Your task to perform on an android device: turn off javascript in the chrome app Image 0: 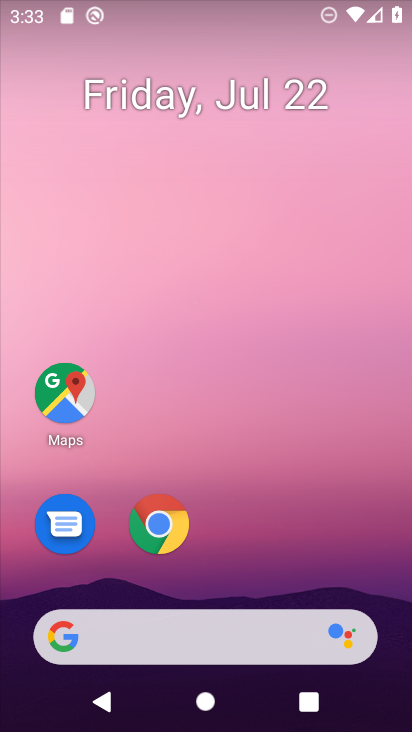
Step 0: press home button
Your task to perform on an android device: turn off javascript in the chrome app Image 1: 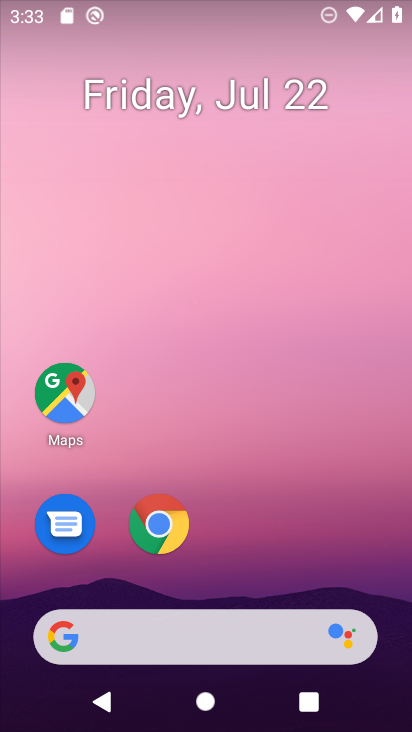
Step 1: click (161, 533)
Your task to perform on an android device: turn off javascript in the chrome app Image 2: 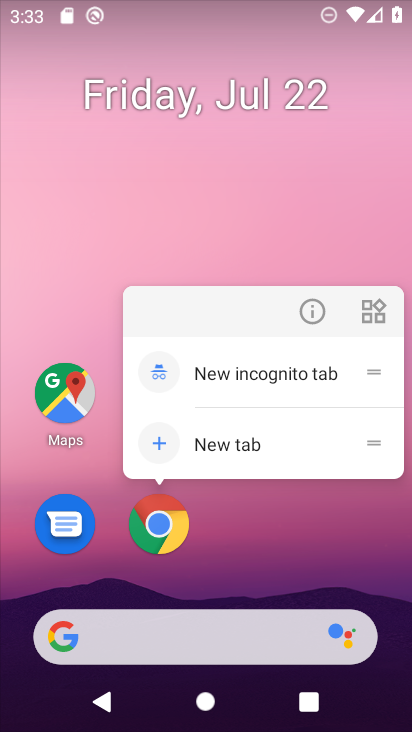
Step 2: click (165, 514)
Your task to perform on an android device: turn off javascript in the chrome app Image 3: 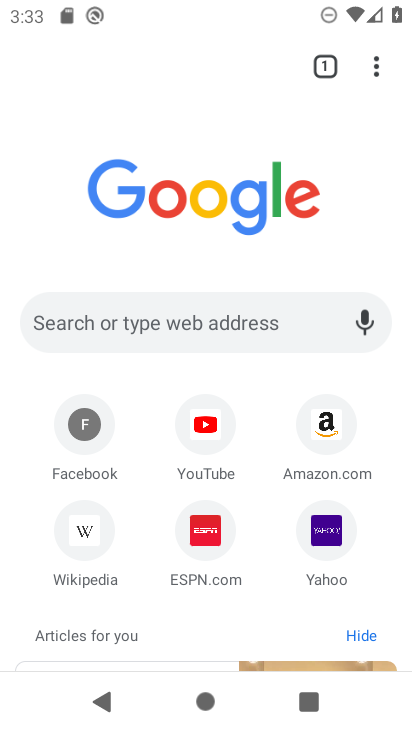
Step 3: drag from (376, 65) to (238, 568)
Your task to perform on an android device: turn off javascript in the chrome app Image 4: 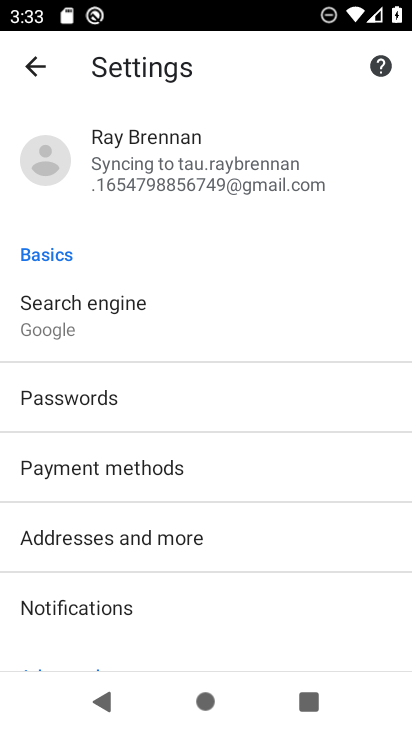
Step 4: drag from (191, 600) to (271, 292)
Your task to perform on an android device: turn off javascript in the chrome app Image 5: 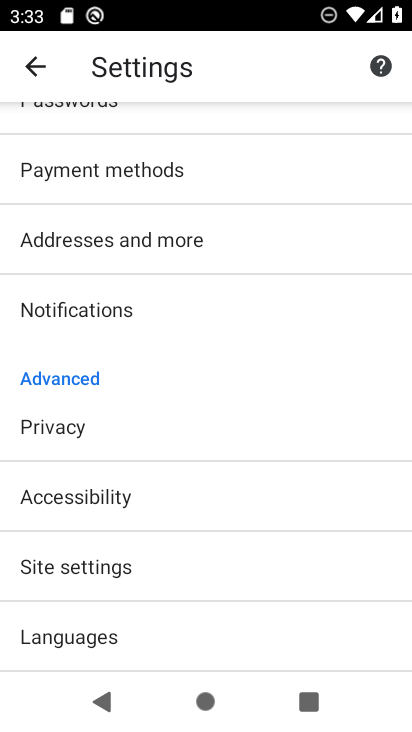
Step 5: click (114, 573)
Your task to perform on an android device: turn off javascript in the chrome app Image 6: 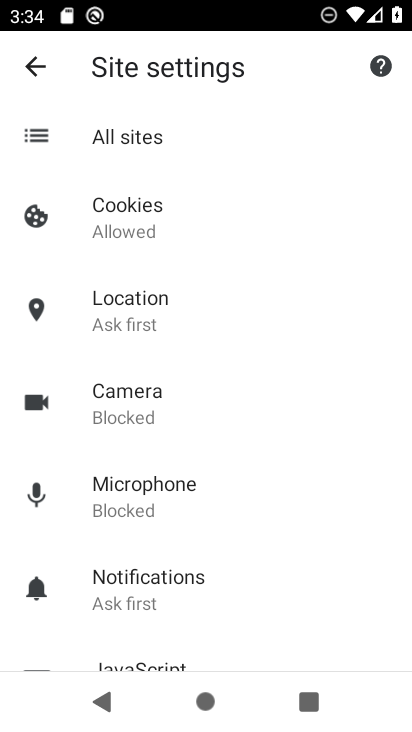
Step 6: drag from (225, 615) to (334, 153)
Your task to perform on an android device: turn off javascript in the chrome app Image 7: 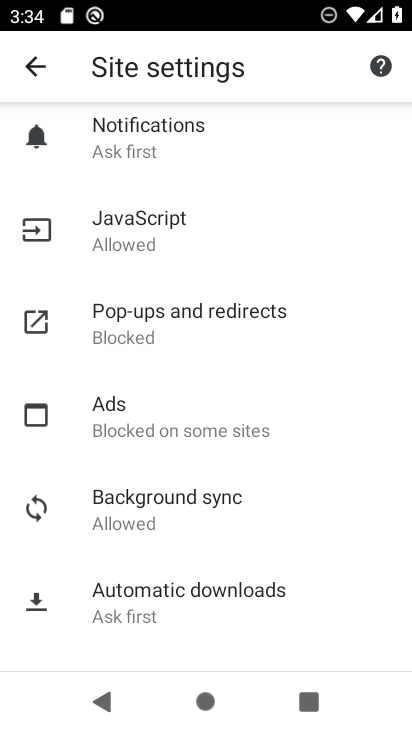
Step 7: click (129, 223)
Your task to perform on an android device: turn off javascript in the chrome app Image 8: 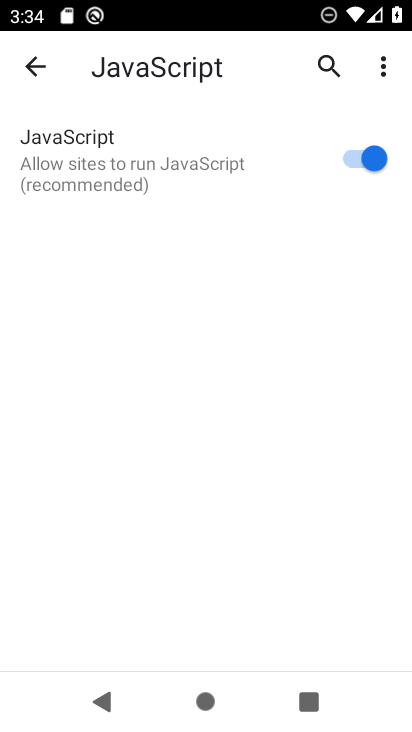
Step 8: click (354, 160)
Your task to perform on an android device: turn off javascript in the chrome app Image 9: 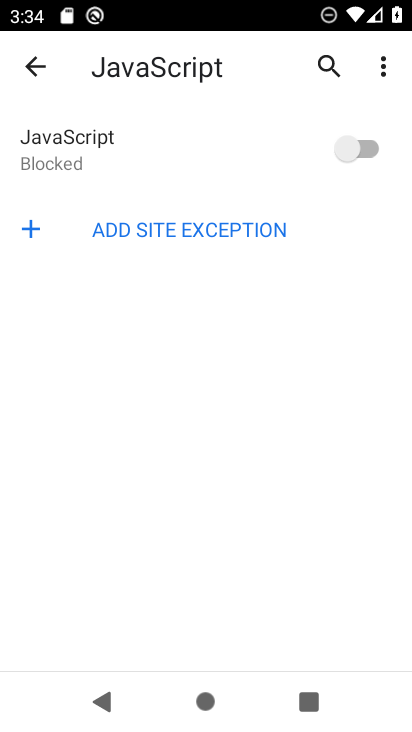
Step 9: task complete